Your task to perform on an android device: set default search engine in the chrome app Image 0: 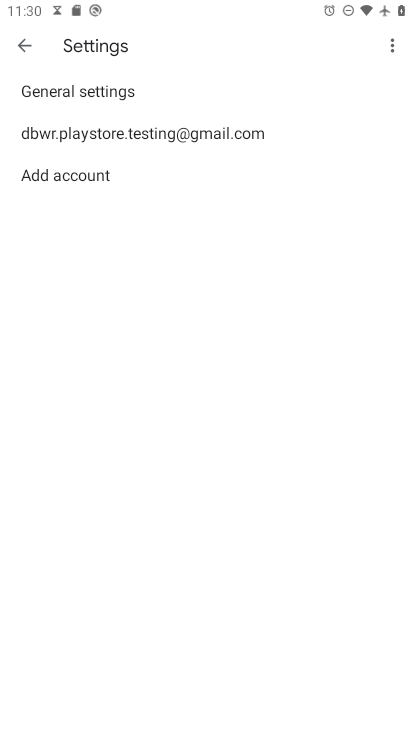
Step 0: press home button
Your task to perform on an android device: set default search engine in the chrome app Image 1: 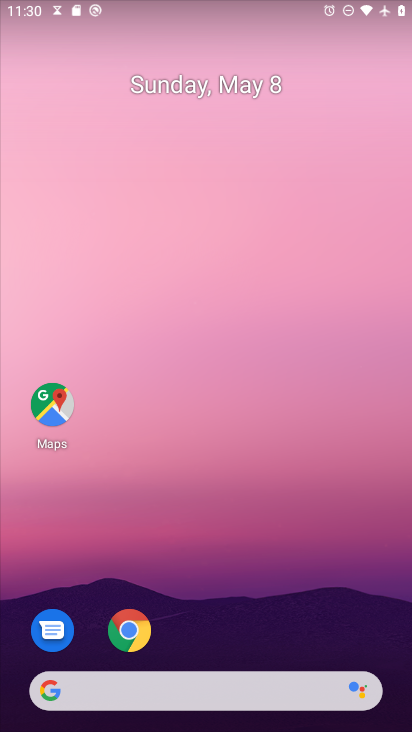
Step 1: click (123, 637)
Your task to perform on an android device: set default search engine in the chrome app Image 2: 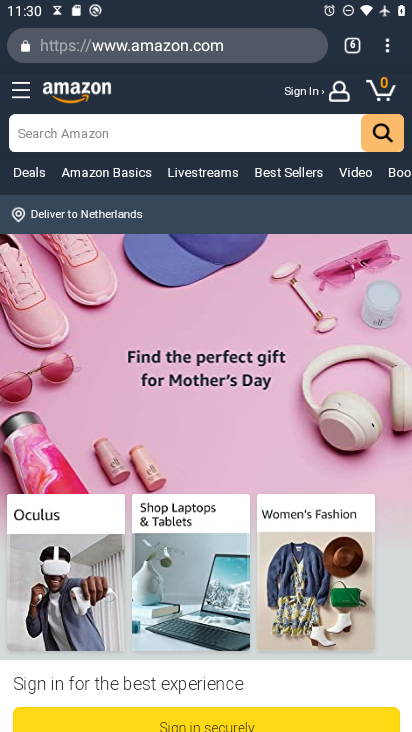
Step 2: drag from (388, 49) to (253, 545)
Your task to perform on an android device: set default search engine in the chrome app Image 3: 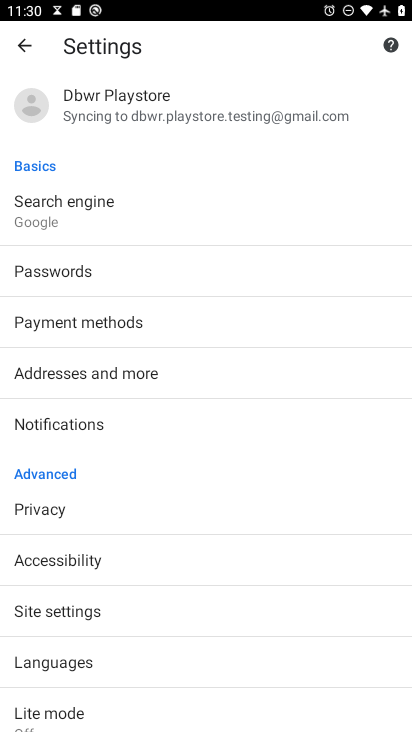
Step 3: click (77, 208)
Your task to perform on an android device: set default search engine in the chrome app Image 4: 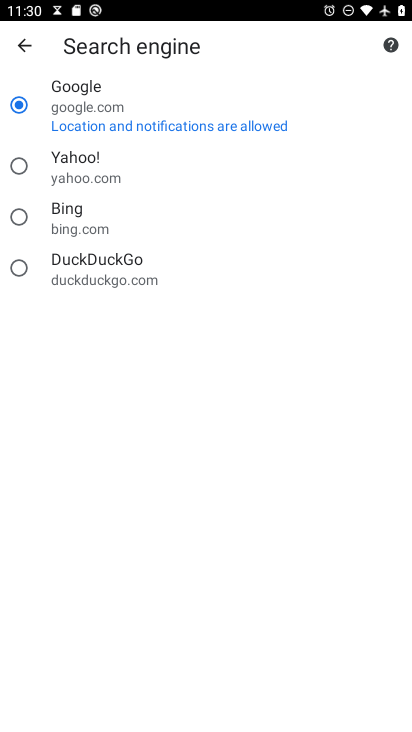
Step 4: click (22, 168)
Your task to perform on an android device: set default search engine in the chrome app Image 5: 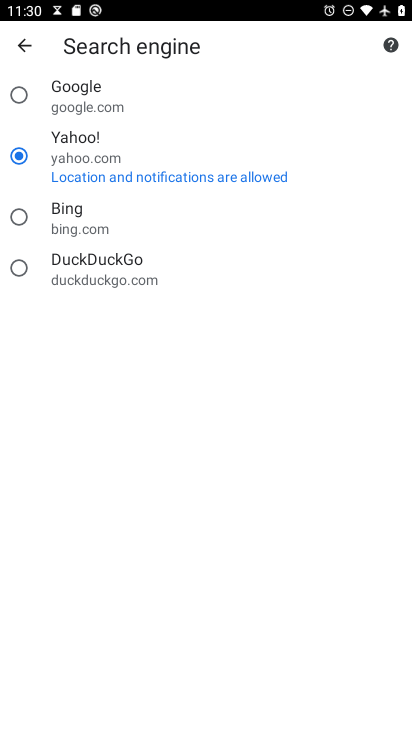
Step 5: task complete